Your task to perform on an android device: Go to ESPN.com Image 0: 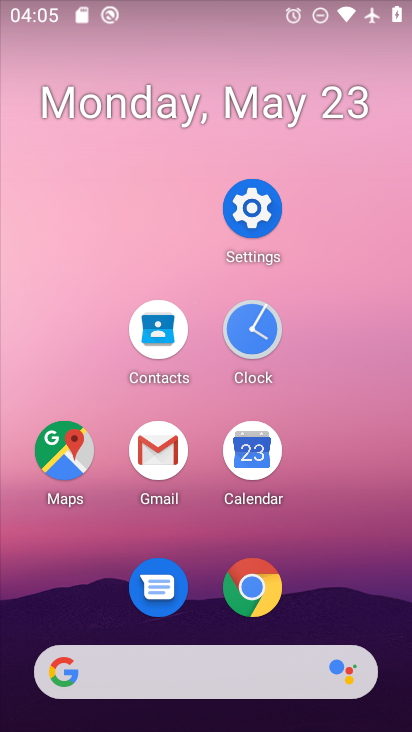
Step 0: click (223, 661)
Your task to perform on an android device: Go to ESPN.com Image 1: 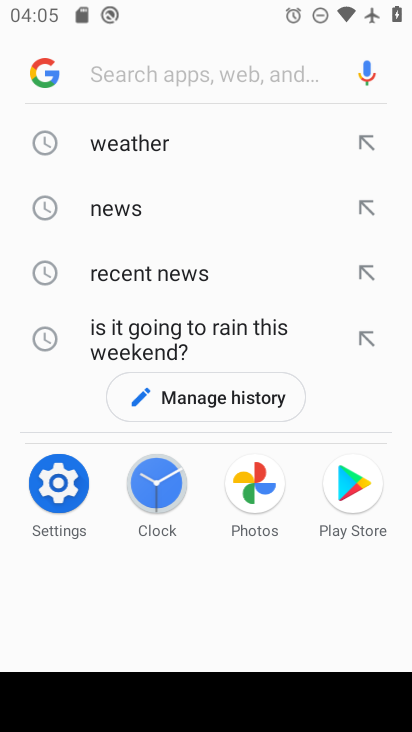
Step 1: type "espn.com"
Your task to perform on an android device: Go to ESPN.com Image 2: 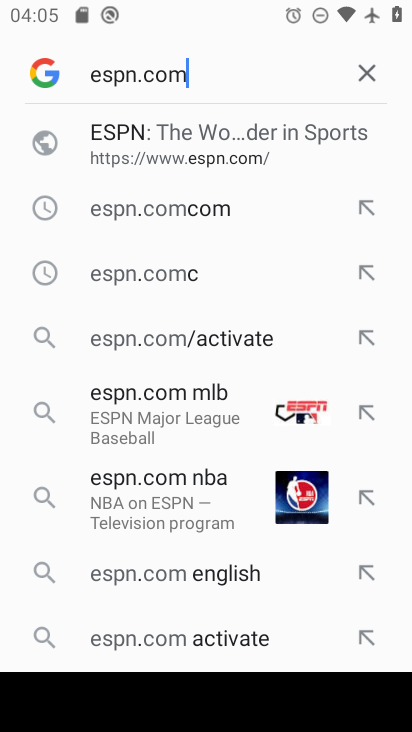
Step 2: click (188, 134)
Your task to perform on an android device: Go to ESPN.com Image 3: 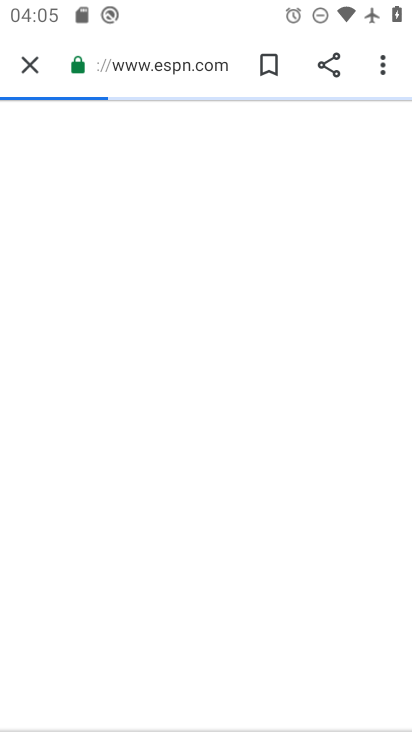
Step 3: task complete